Your task to perform on an android device: turn on location history Image 0: 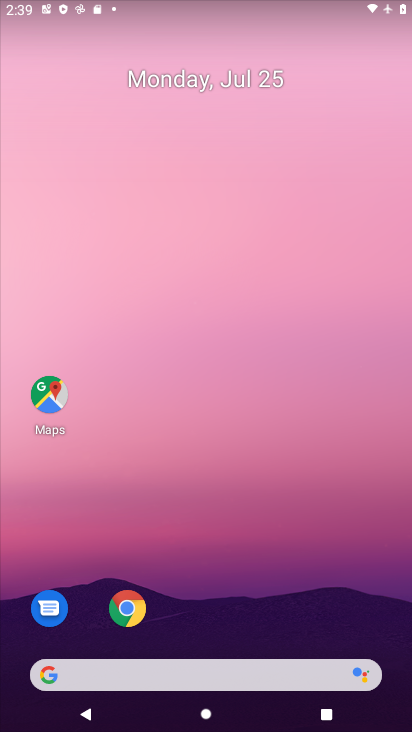
Step 0: drag from (182, 657) to (270, 170)
Your task to perform on an android device: turn on location history Image 1: 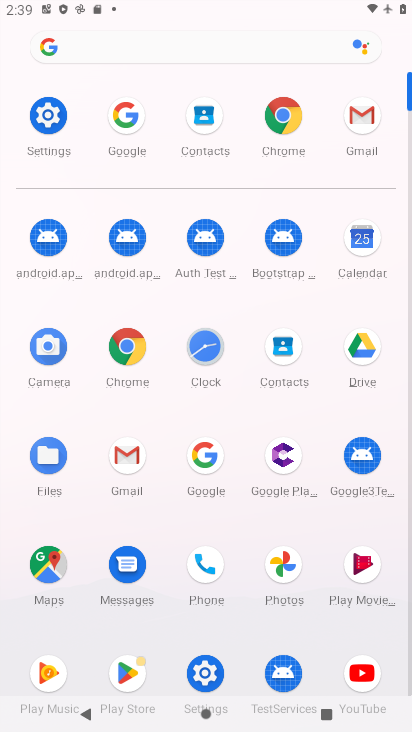
Step 1: click (46, 123)
Your task to perform on an android device: turn on location history Image 2: 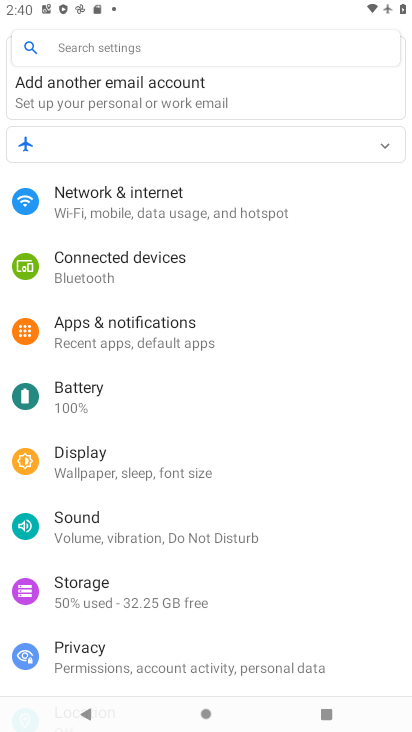
Step 2: drag from (119, 559) to (183, 194)
Your task to perform on an android device: turn on location history Image 3: 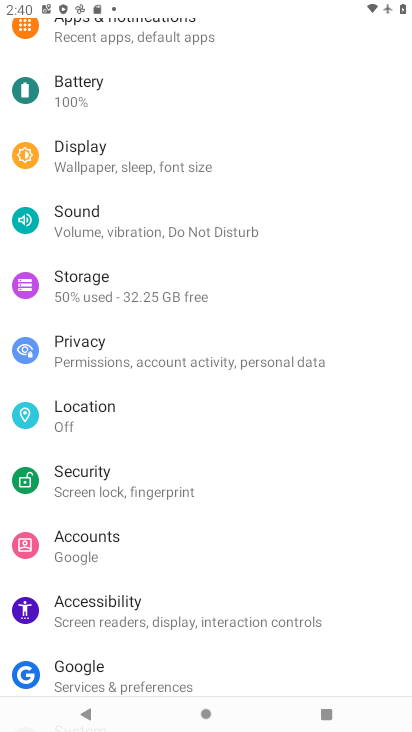
Step 3: click (114, 422)
Your task to perform on an android device: turn on location history Image 4: 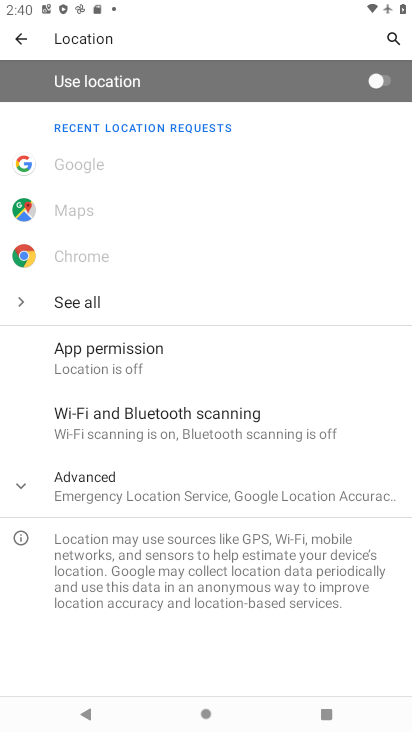
Step 4: click (109, 498)
Your task to perform on an android device: turn on location history Image 5: 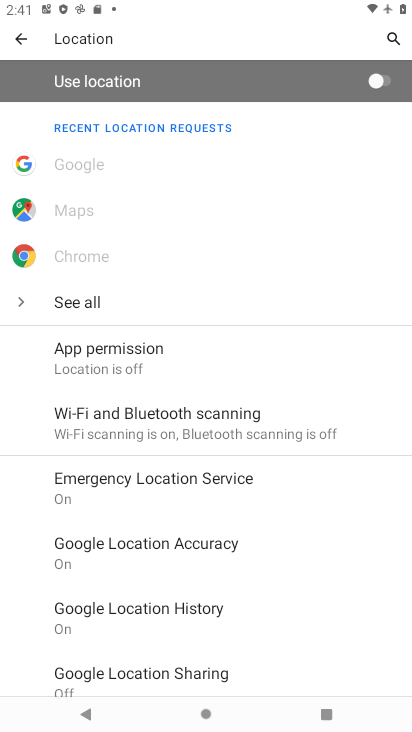
Step 5: click (168, 616)
Your task to perform on an android device: turn on location history Image 6: 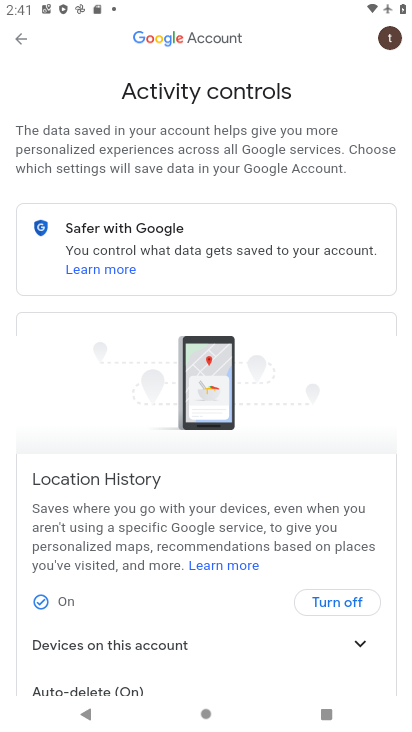
Step 6: task complete